Your task to perform on an android device: Show me the alarms in the clock app Image 0: 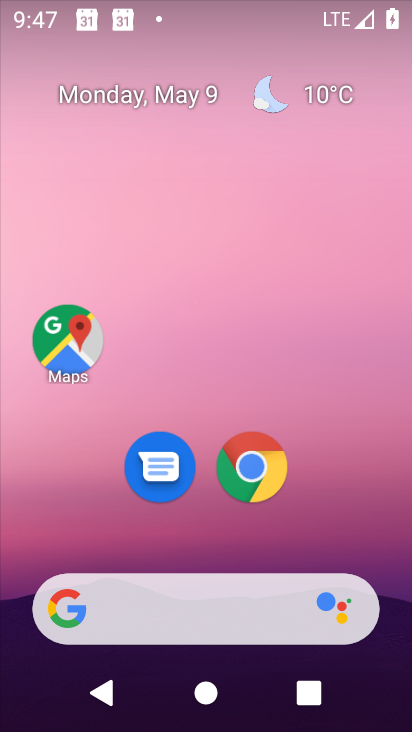
Step 0: drag from (373, 554) to (412, 35)
Your task to perform on an android device: Show me the alarms in the clock app Image 1: 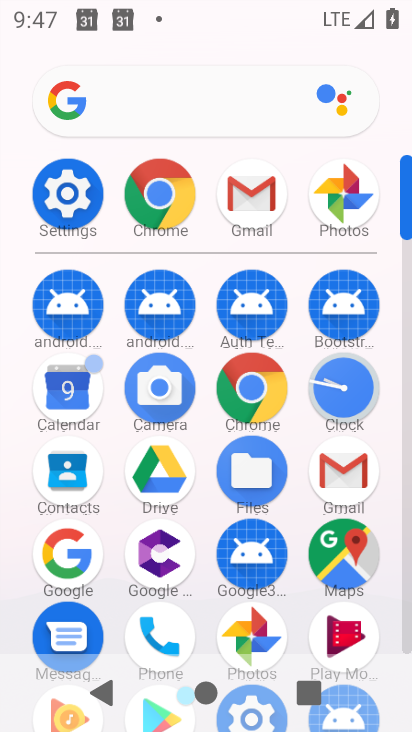
Step 1: click (345, 390)
Your task to perform on an android device: Show me the alarms in the clock app Image 2: 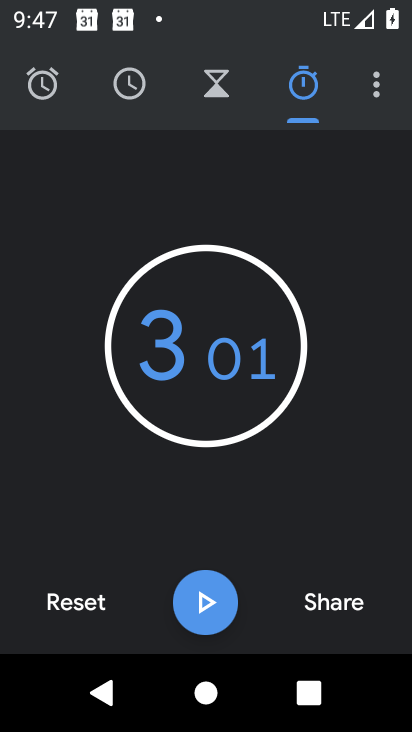
Step 2: click (34, 81)
Your task to perform on an android device: Show me the alarms in the clock app Image 3: 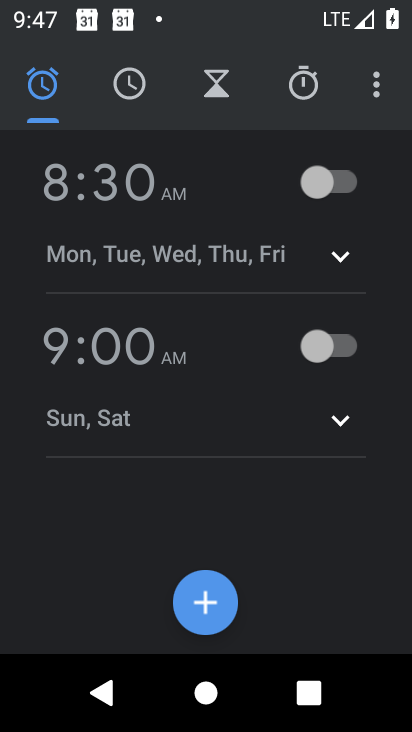
Step 3: task complete